Your task to perform on an android device: add a contact in the contacts app Image 0: 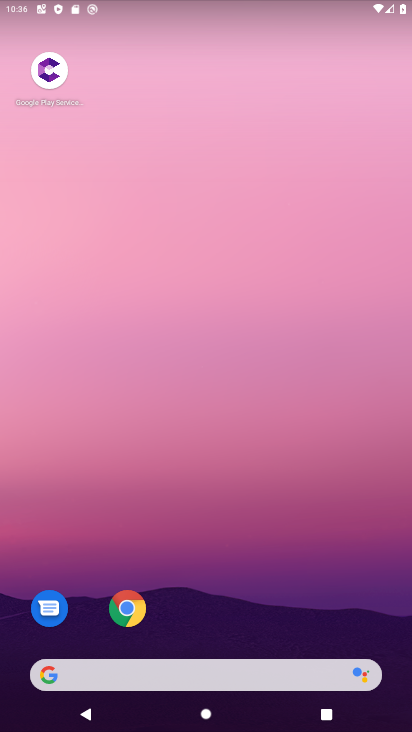
Step 0: drag from (230, 619) to (244, 80)
Your task to perform on an android device: add a contact in the contacts app Image 1: 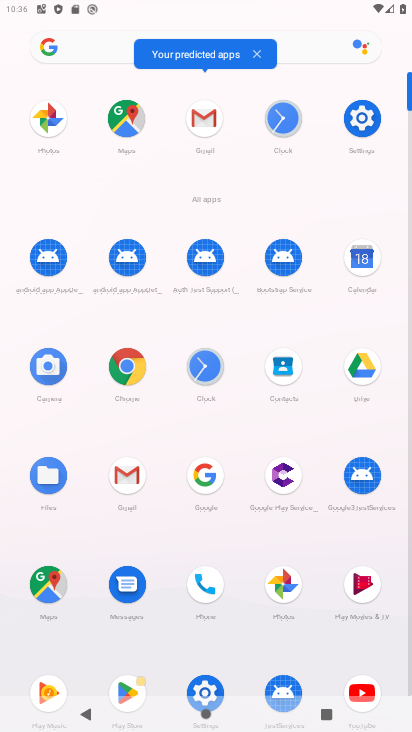
Step 1: click (285, 364)
Your task to perform on an android device: add a contact in the contacts app Image 2: 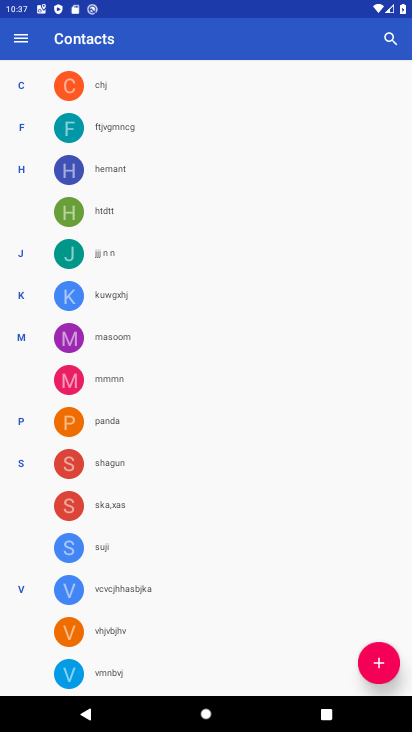
Step 2: click (369, 665)
Your task to perform on an android device: add a contact in the contacts app Image 3: 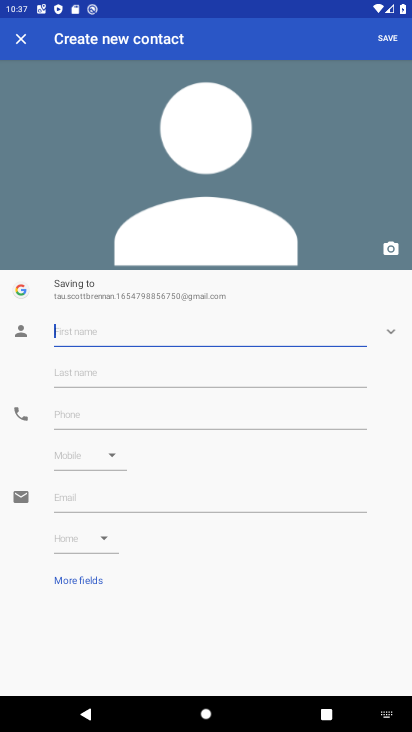
Step 3: type "telepath"
Your task to perform on an android device: add a contact in the contacts app Image 4: 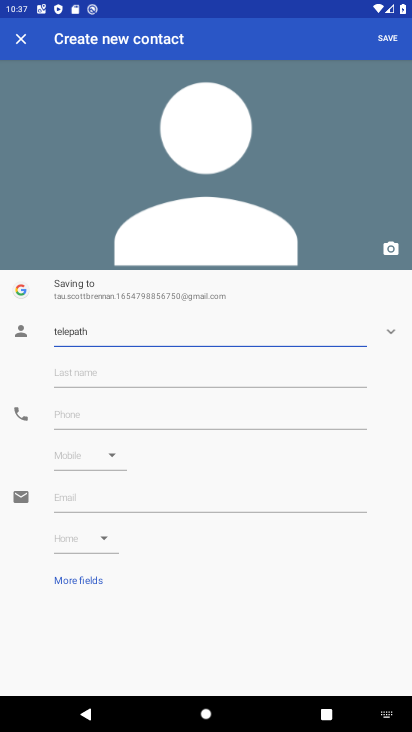
Step 4: click (392, 40)
Your task to perform on an android device: add a contact in the contacts app Image 5: 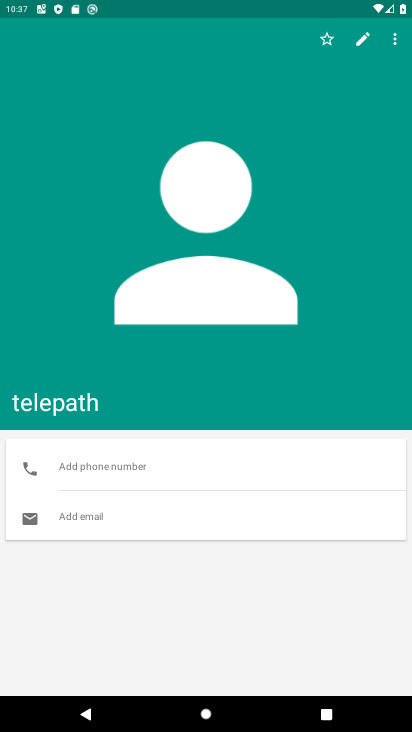
Step 5: task complete